Your task to perform on an android device: set default search engine in the chrome app Image 0: 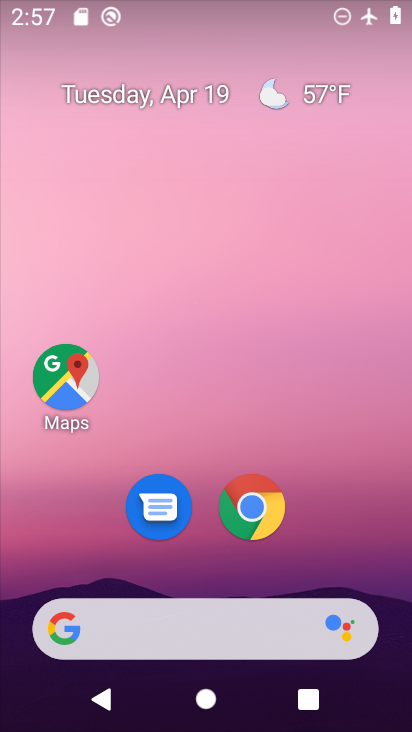
Step 0: click (261, 532)
Your task to perform on an android device: set default search engine in the chrome app Image 1: 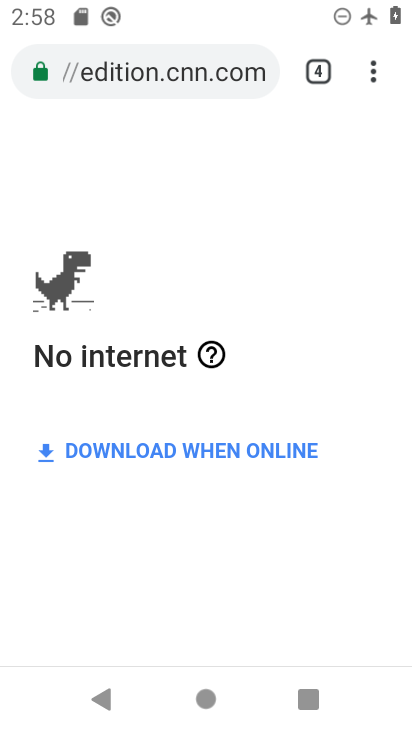
Step 1: click (383, 90)
Your task to perform on an android device: set default search engine in the chrome app Image 2: 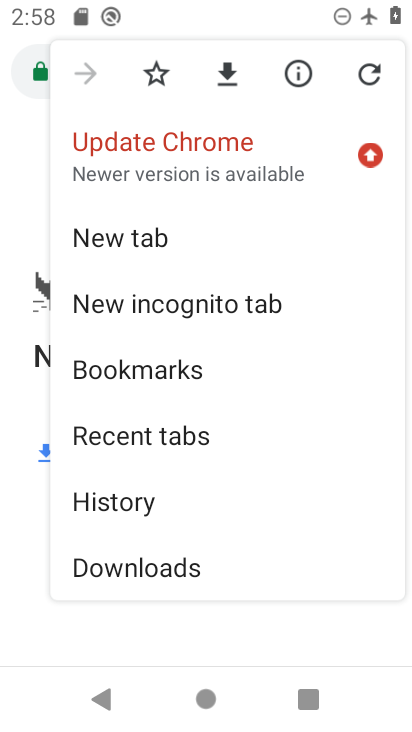
Step 2: drag from (298, 479) to (297, 198)
Your task to perform on an android device: set default search engine in the chrome app Image 3: 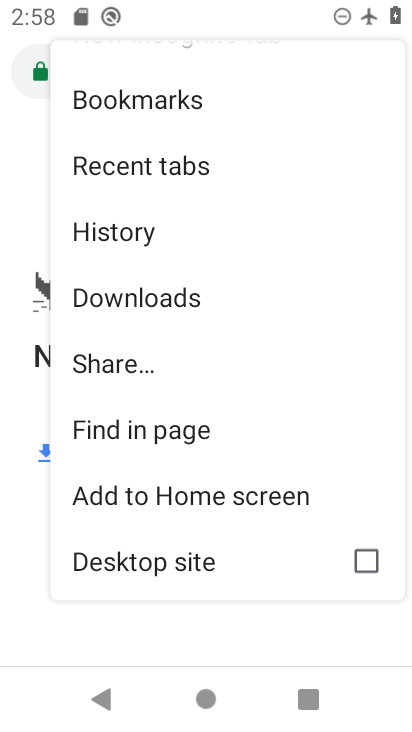
Step 3: drag from (229, 531) to (211, 339)
Your task to perform on an android device: set default search engine in the chrome app Image 4: 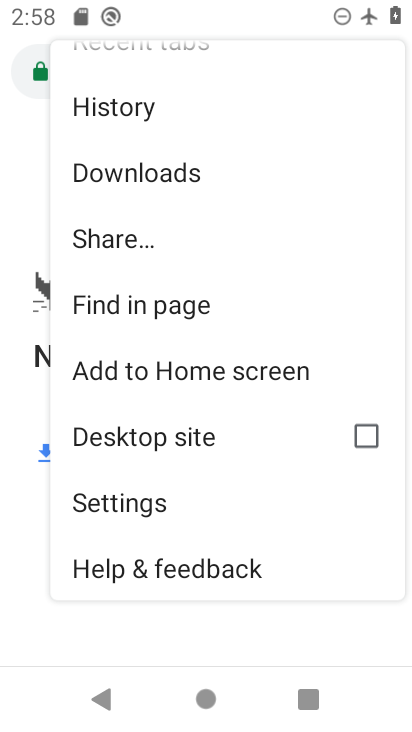
Step 4: click (183, 505)
Your task to perform on an android device: set default search engine in the chrome app Image 5: 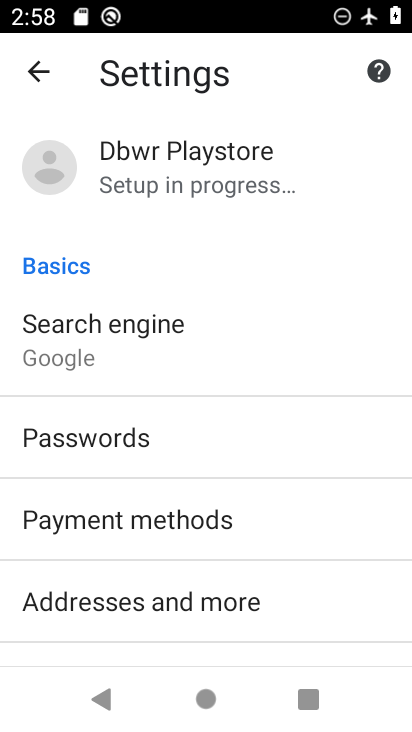
Step 5: click (224, 359)
Your task to perform on an android device: set default search engine in the chrome app Image 6: 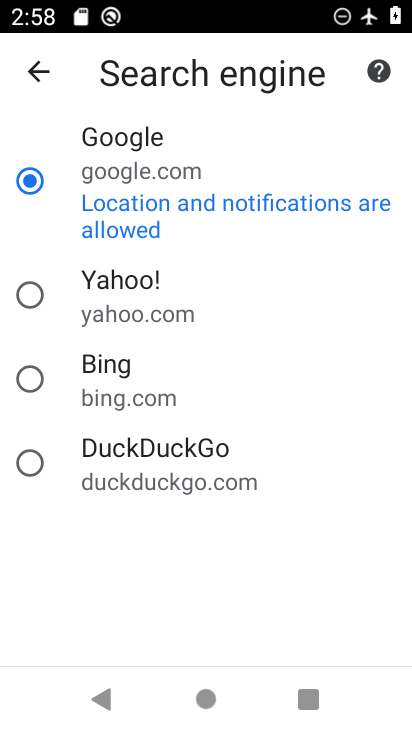
Step 6: click (154, 420)
Your task to perform on an android device: set default search engine in the chrome app Image 7: 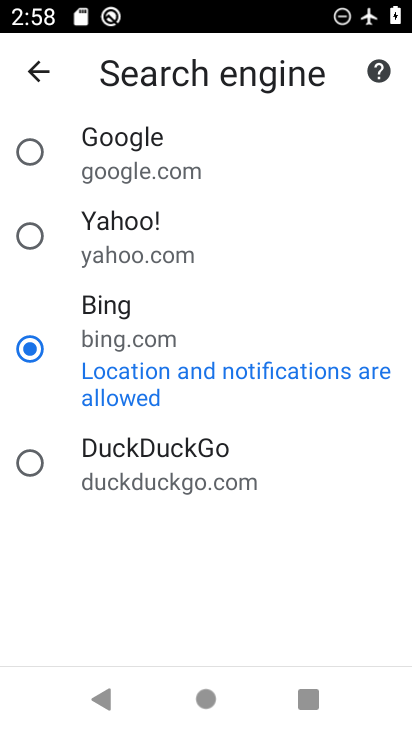
Step 7: task complete